Your task to perform on an android device: Is it going to rain today? Image 0: 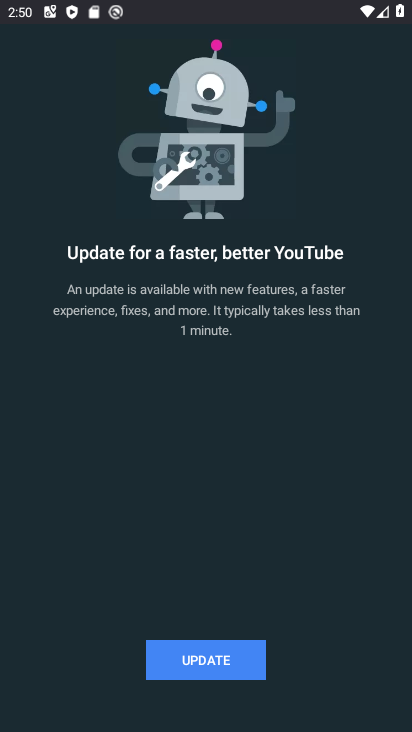
Step 0: press home button
Your task to perform on an android device: Is it going to rain today? Image 1: 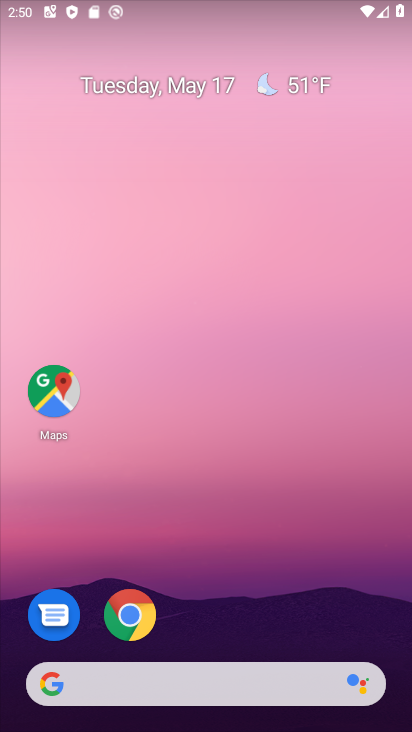
Step 1: click (310, 76)
Your task to perform on an android device: Is it going to rain today? Image 2: 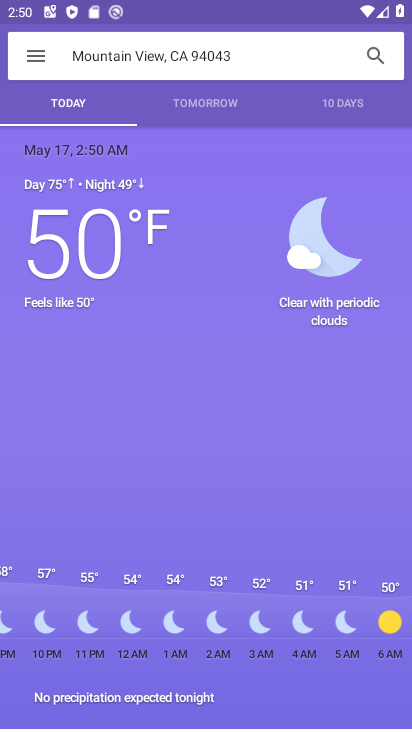
Step 2: drag from (365, 626) to (3, 622)
Your task to perform on an android device: Is it going to rain today? Image 3: 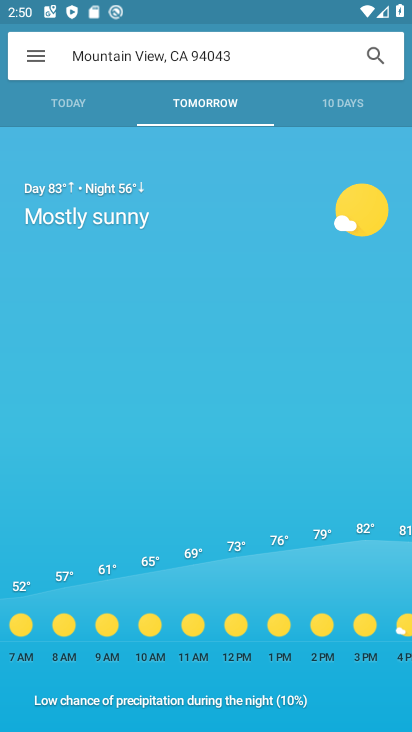
Step 3: click (64, 110)
Your task to perform on an android device: Is it going to rain today? Image 4: 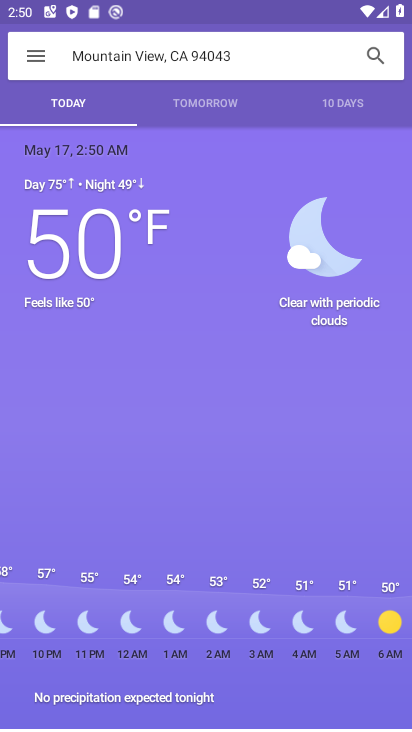
Step 4: drag from (324, 625) to (398, 617)
Your task to perform on an android device: Is it going to rain today? Image 5: 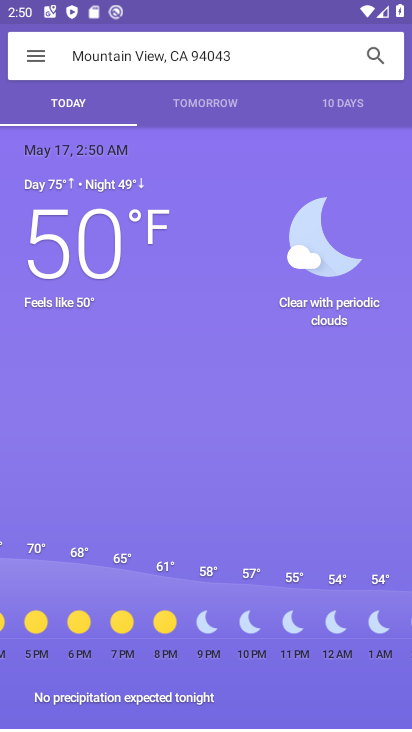
Step 5: drag from (63, 621) to (311, 635)
Your task to perform on an android device: Is it going to rain today? Image 6: 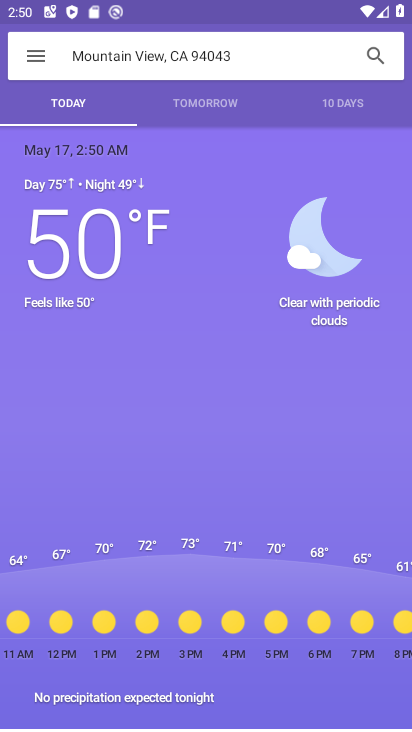
Step 6: drag from (345, 632) to (105, 626)
Your task to perform on an android device: Is it going to rain today? Image 7: 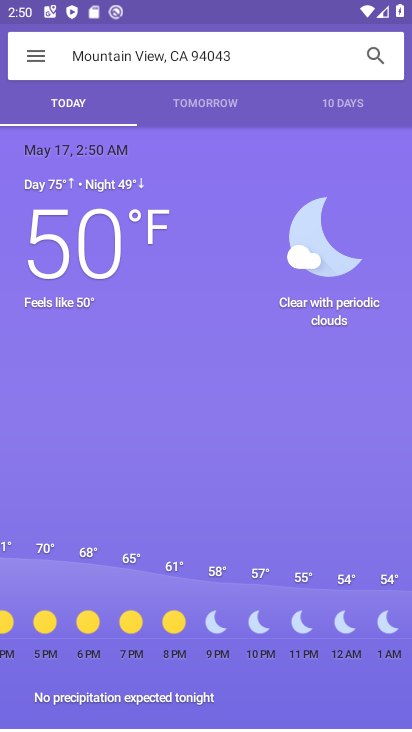
Step 7: click (105, 626)
Your task to perform on an android device: Is it going to rain today? Image 8: 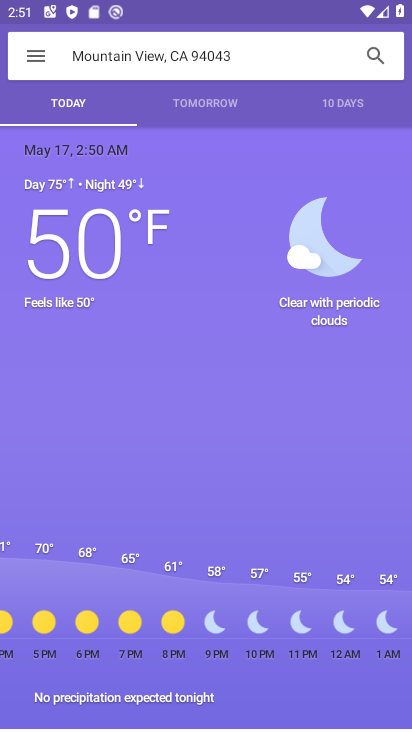
Step 8: task complete